Your task to perform on an android device: toggle show notifications on the lock screen Image 0: 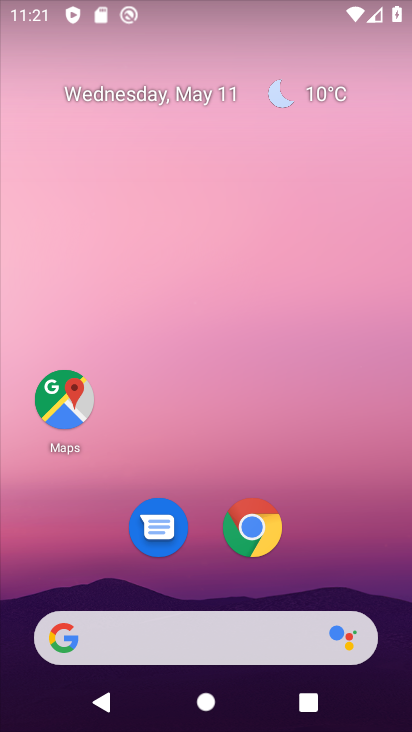
Step 0: drag from (206, 581) to (309, 20)
Your task to perform on an android device: toggle show notifications on the lock screen Image 1: 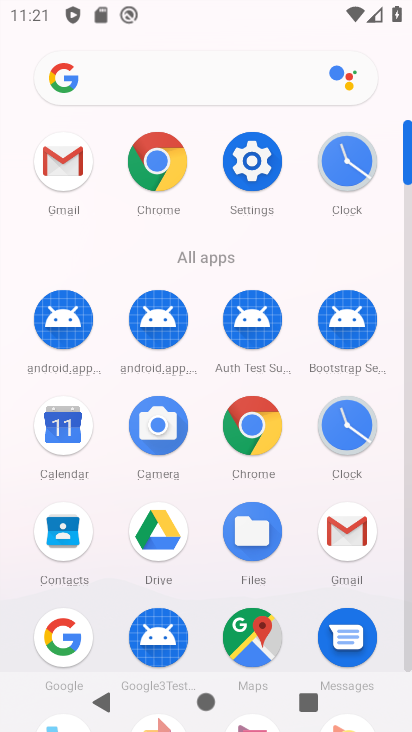
Step 1: click (260, 179)
Your task to perform on an android device: toggle show notifications on the lock screen Image 2: 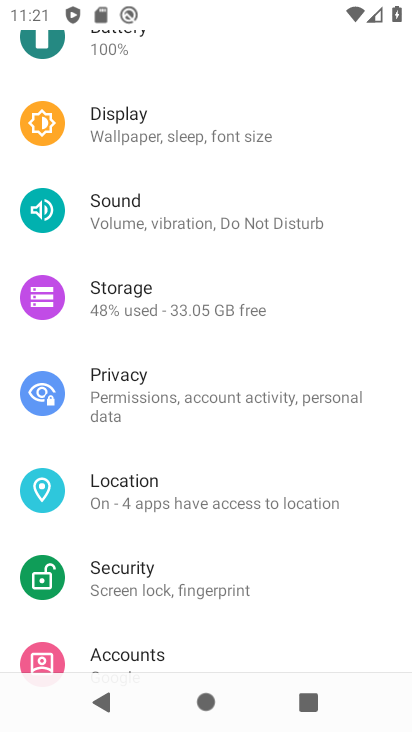
Step 2: drag from (234, 218) to (225, 711)
Your task to perform on an android device: toggle show notifications on the lock screen Image 3: 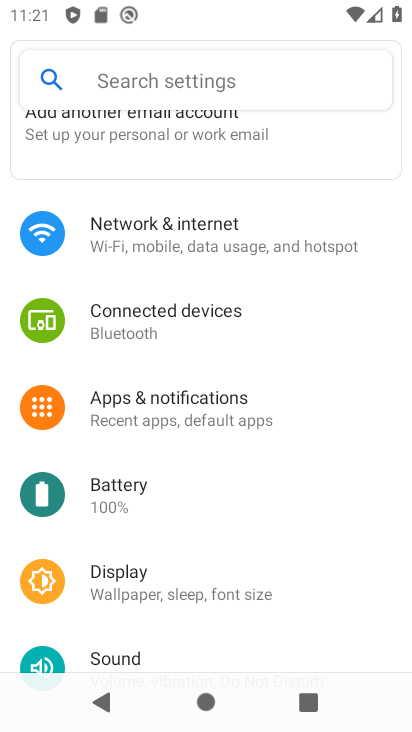
Step 3: click (181, 423)
Your task to perform on an android device: toggle show notifications on the lock screen Image 4: 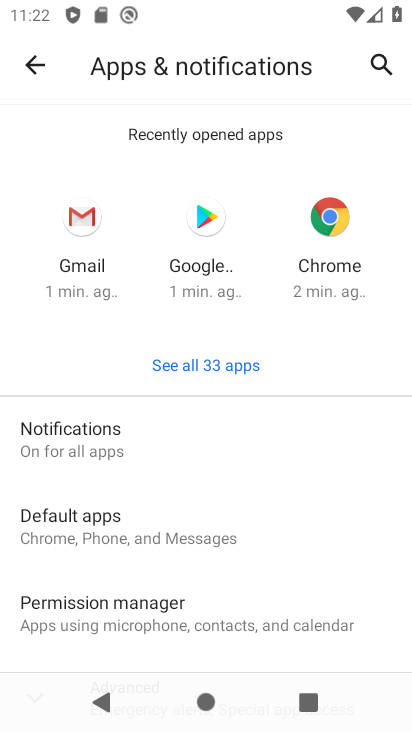
Step 4: click (135, 456)
Your task to perform on an android device: toggle show notifications on the lock screen Image 5: 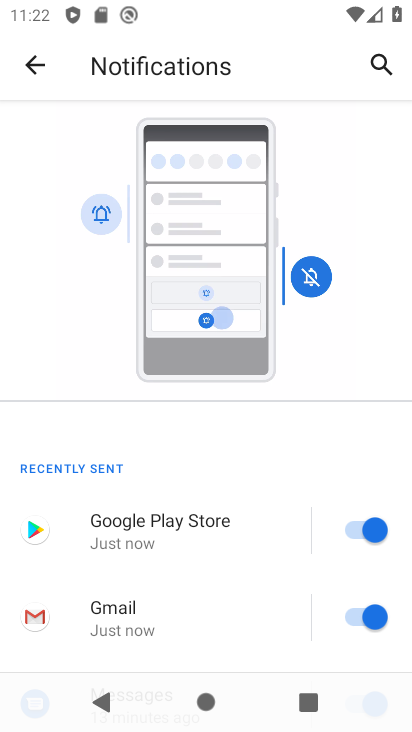
Step 5: drag from (177, 585) to (316, 15)
Your task to perform on an android device: toggle show notifications on the lock screen Image 6: 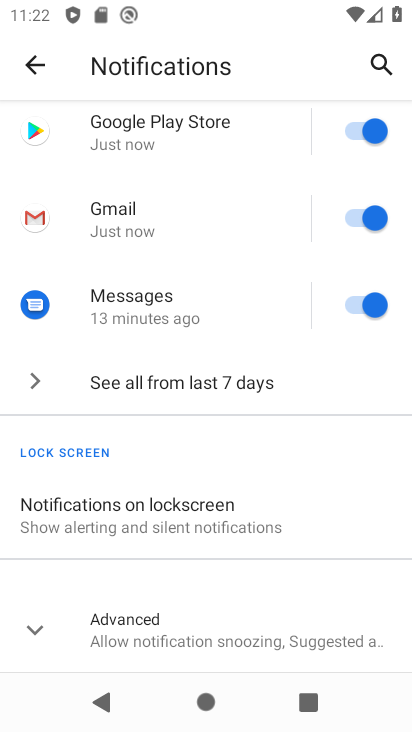
Step 6: click (185, 514)
Your task to perform on an android device: toggle show notifications on the lock screen Image 7: 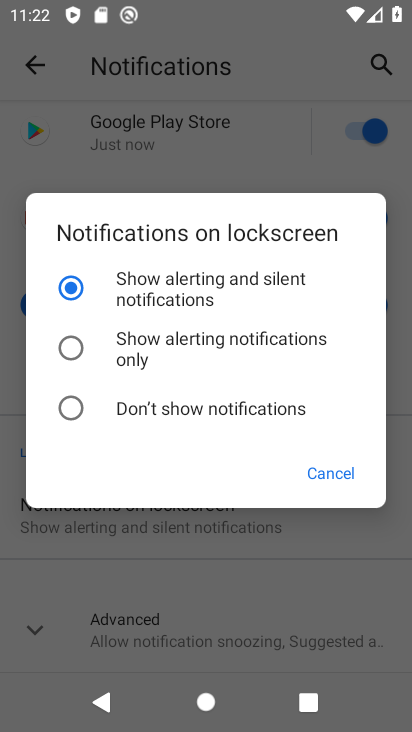
Step 7: click (83, 408)
Your task to perform on an android device: toggle show notifications on the lock screen Image 8: 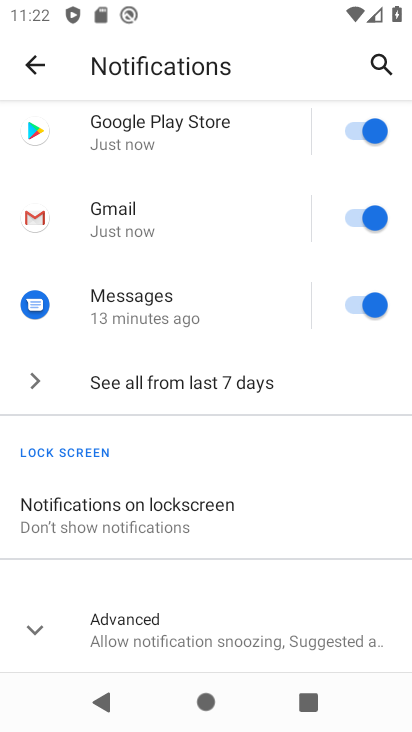
Step 8: task complete